Your task to perform on an android device: turn smart compose on in the gmail app Image 0: 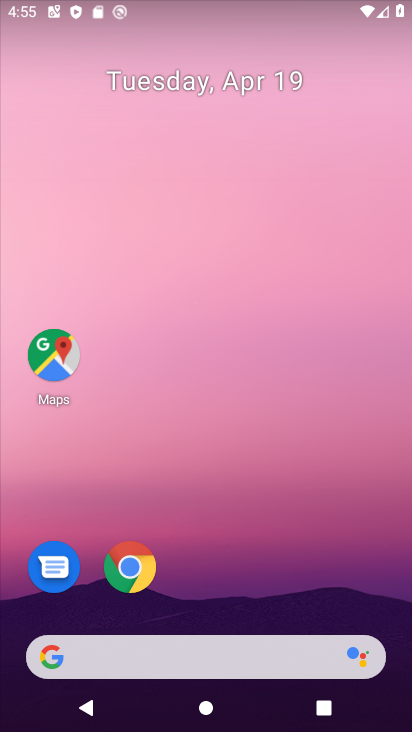
Step 0: drag from (312, 565) to (304, 271)
Your task to perform on an android device: turn smart compose on in the gmail app Image 1: 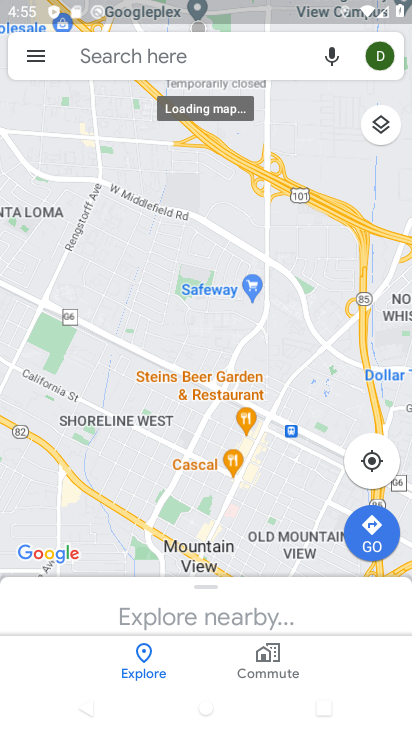
Step 1: press home button
Your task to perform on an android device: turn smart compose on in the gmail app Image 2: 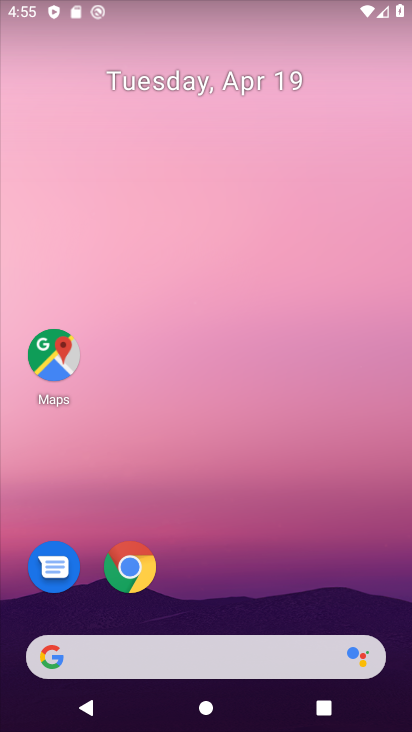
Step 2: click (287, 173)
Your task to perform on an android device: turn smart compose on in the gmail app Image 3: 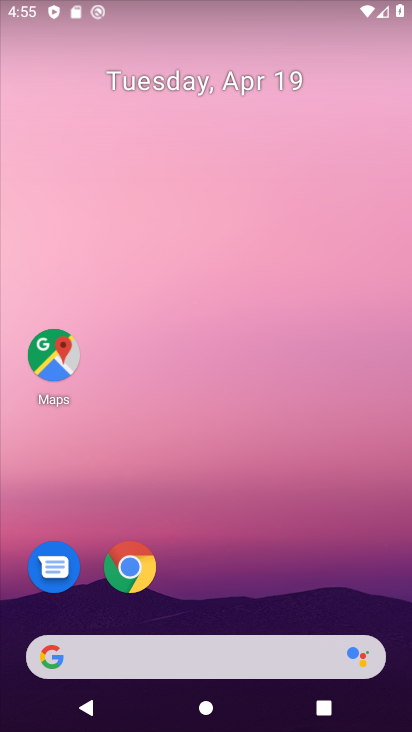
Step 3: drag from (359, 551) to (392, 8)
Your task to perform on an android device: turn smart compose on in the gmail app Image 4: 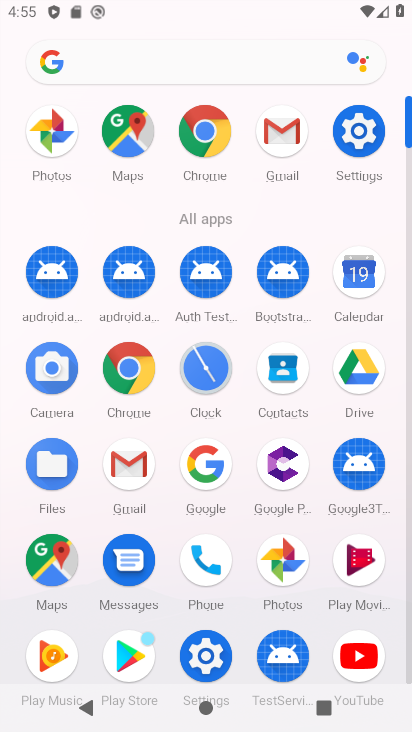
Step 4: click (120, 479)
Your task to perform on an android device: turn smart compose on in the gmail app Image 5: 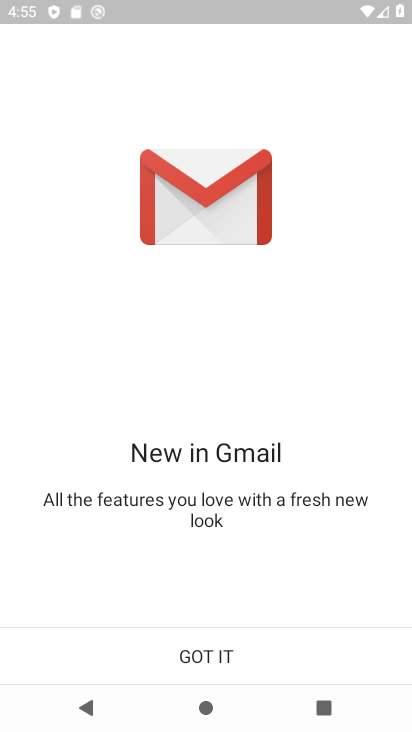
Step 5: click (189, 634)
Your task to perform on an android device: turn smart compose on in the gmail app Image 6: 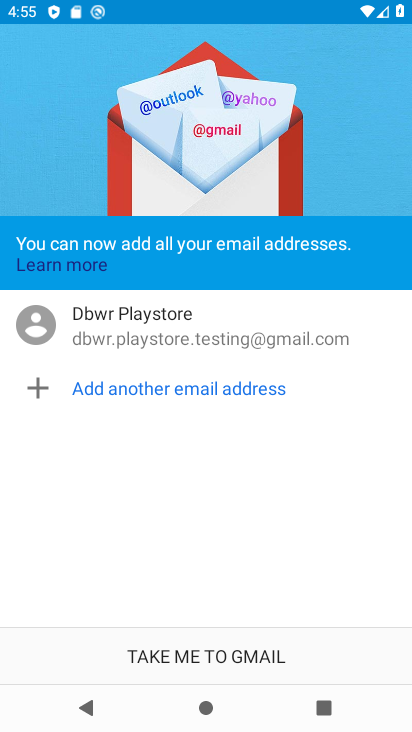
Step 6: click (189, 634)
Your task to perform on an android device: turn smart compose on in the gmail app Image 7: 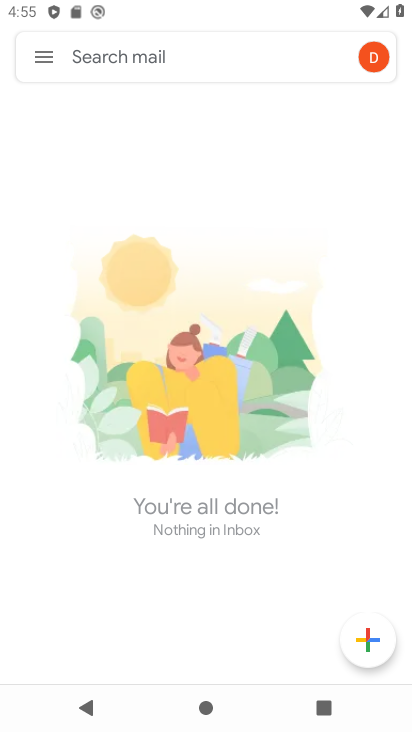
Step 7: click (39, 65)
Your task to perform on an android device: turn smart compose on in the gmail app Image 8: 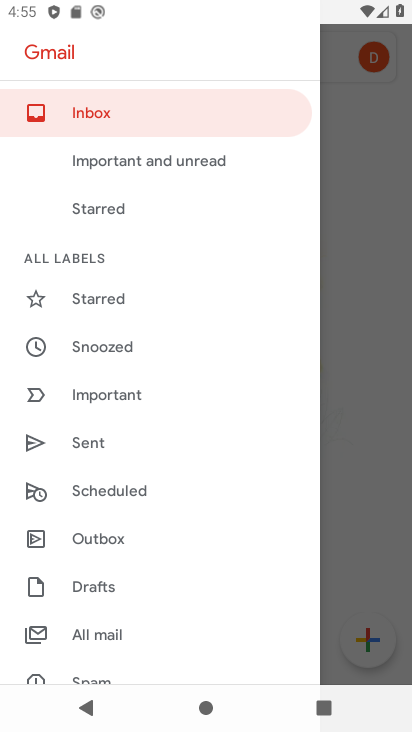
Step 8: drag from (213, 612) to (223, 139)
Your task to perform on an android device: turn smart compose on in the gmail app Image 9: 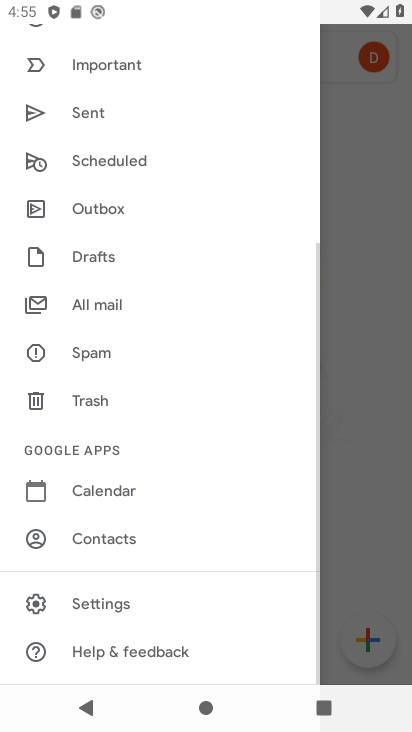
Step 9: click (89, 591)
Your task to perform on an android device: turn smart compose on in the gmail app Image 10: 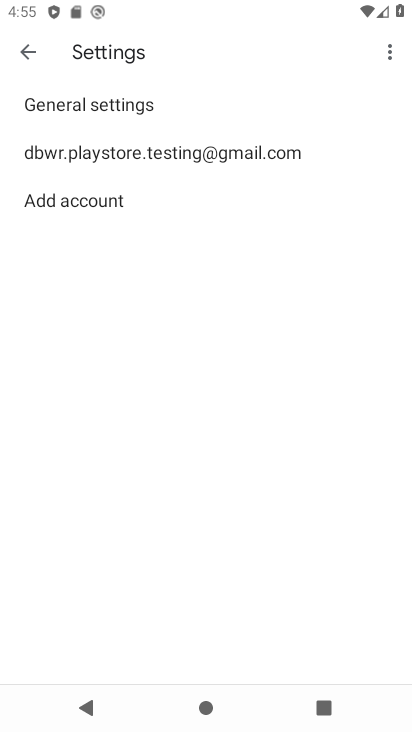
Step 10: click (223, 160)
Your task to perform on an android device: turn smart compose on in the gmail app Image 11: 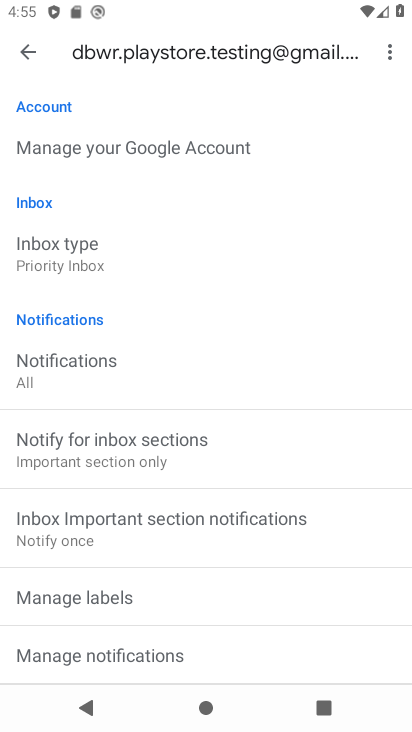
Step 11: task complete